Your task to perform on an android device: Open ESPN.com Image 0: 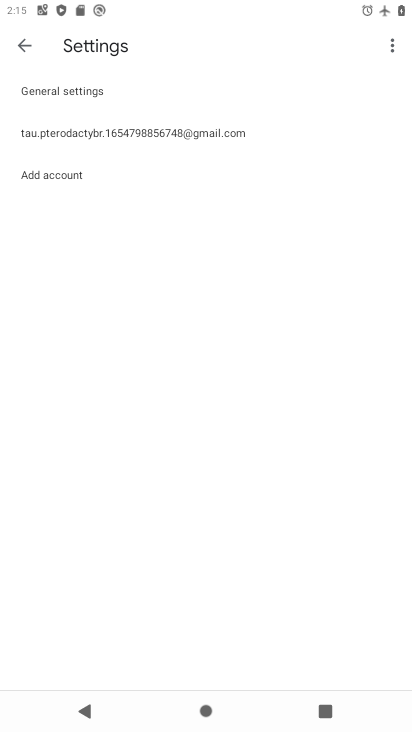
Step 0: press home button
Your task to perform on an android device: Open ESPN.com Image 1: 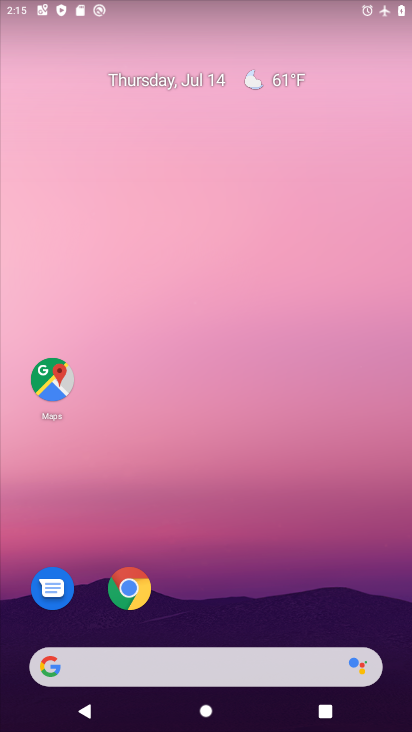
Step 1: drag from (231, 573) to (231, 104)
Your task to perform on an android device: Open ESPN.com Image 2: 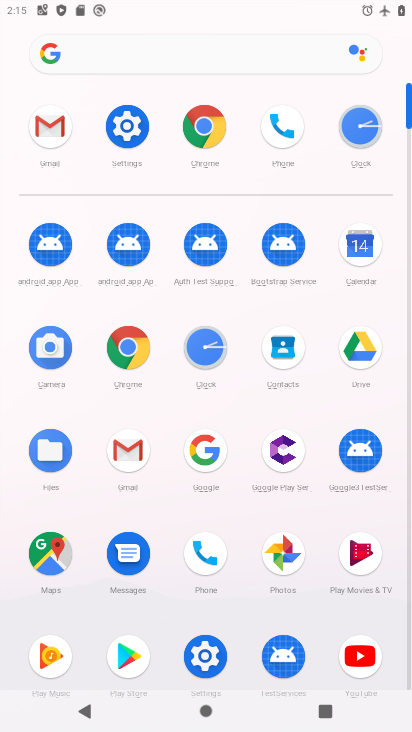
Step 2: click (205, 116)
Your task to perform on an android device: Open ESPN.com Image 3: 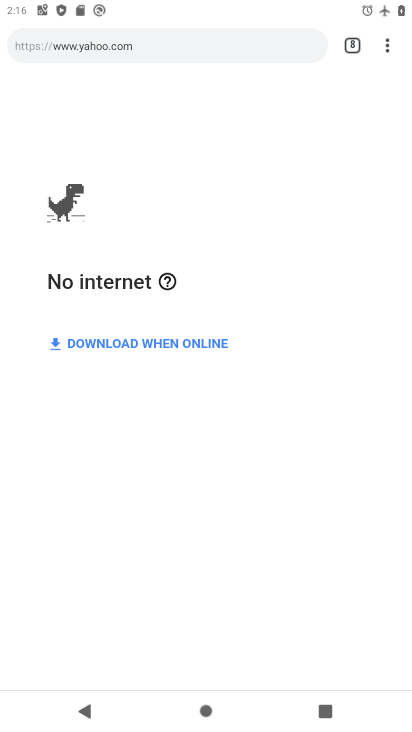
Step 3: click (388, 36)
Your task to perform on an android device: Open ESPN.com Image 4: 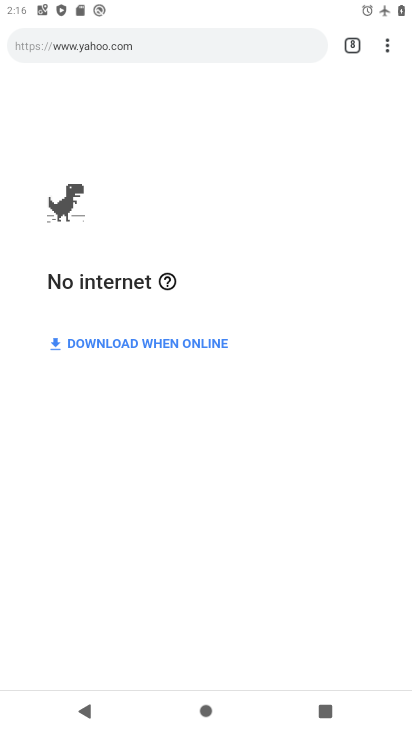
Step 4: click (386, 42)
Your task to perform on an android device: Open ESPN.com Image 5: 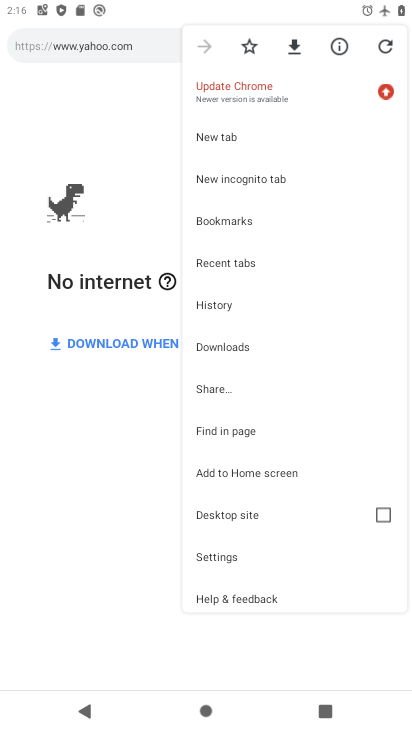
Step 5: click (265, 138)
Your task to perform on an android device: Open ESPN.com Image 6: 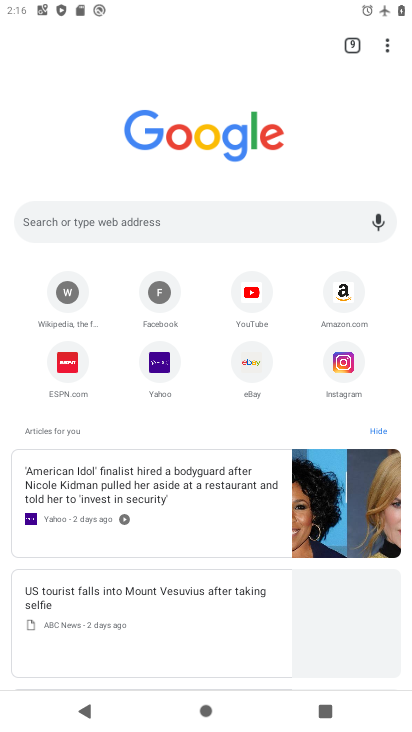
Step 6: click (72, 357)
Your task to perform on an android device: Open ESPN.com Image 7: 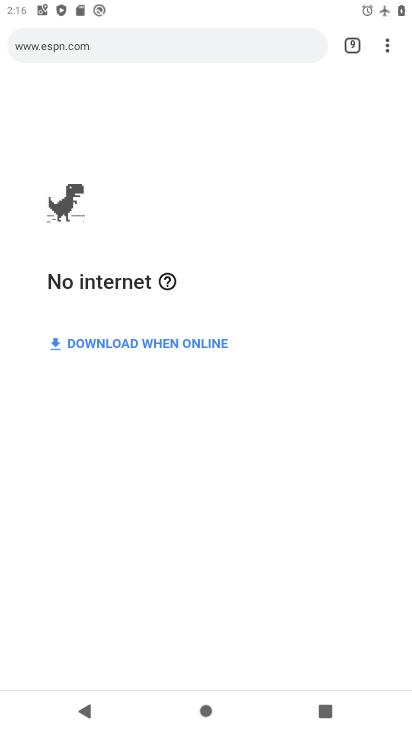
Step 7: task complete